Your task to perform on an android device: Search for sushi restaurants on Maps Image 0: 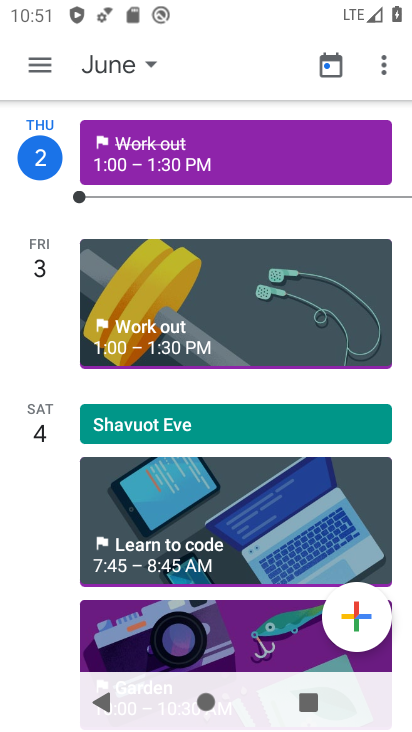
Step 0: press home button
Your task to perform on an android device: Search for sushi restaurants on Maps Image 1: 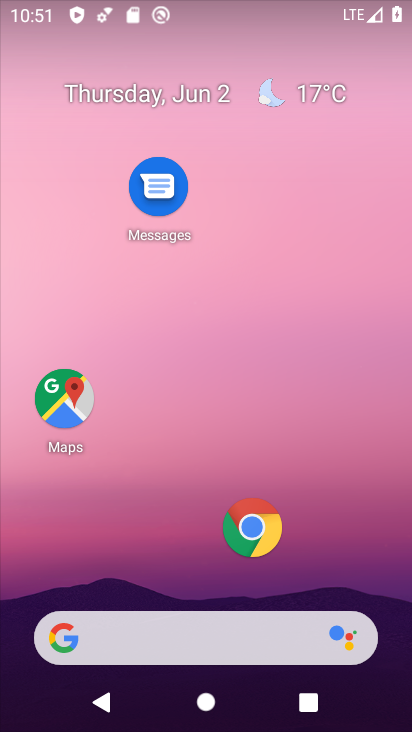
Step 1: click (59, 392)
Your task to perform on an android device: Search for sushi restaurants on Maps Image 2: 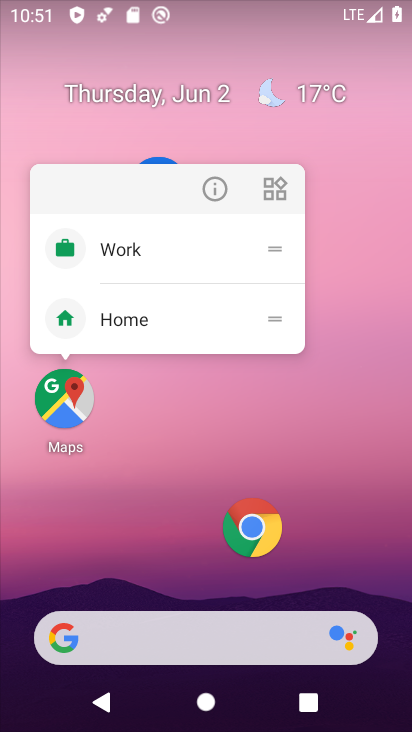
Step 2: click (60, 396)
Your task to perform on an android device: Search for sushi restaurants on Maps Image 3: 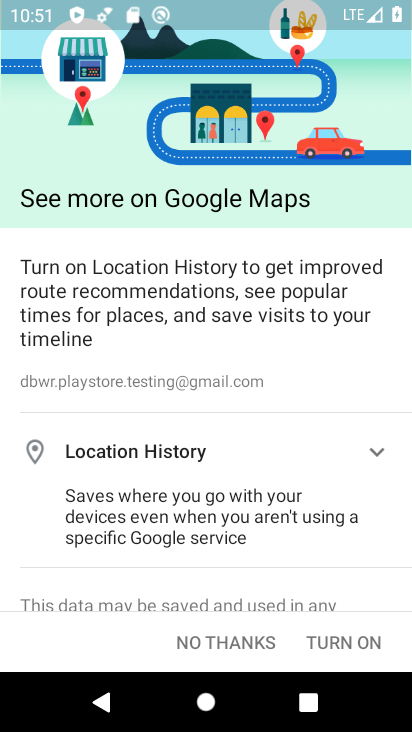
Step 3: click (365, 643)
Your task to perform on an android device: Search for sushi restaurants on Maps Image 4: 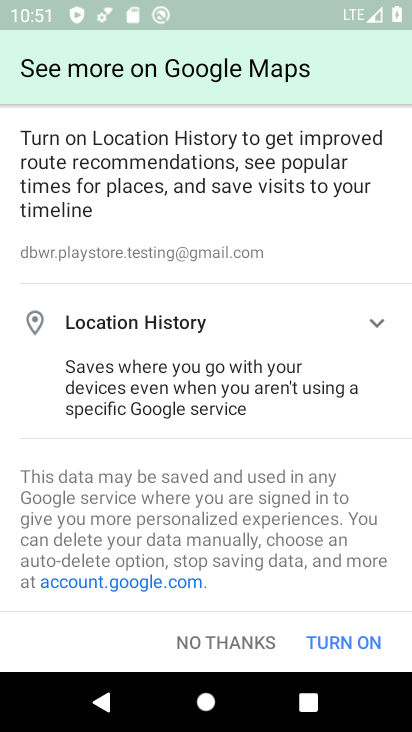
Step 4: click (362, 637)
Your task to perform on an android device: Search for sushi restaurants on Maps Image 5: 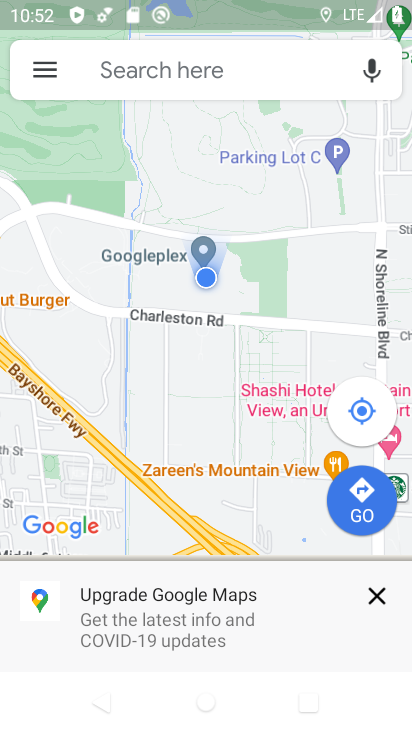
Step 5: click (150, 62)
Your task to perform on an android device: Search for sushi restaurants on Maps Image 6: 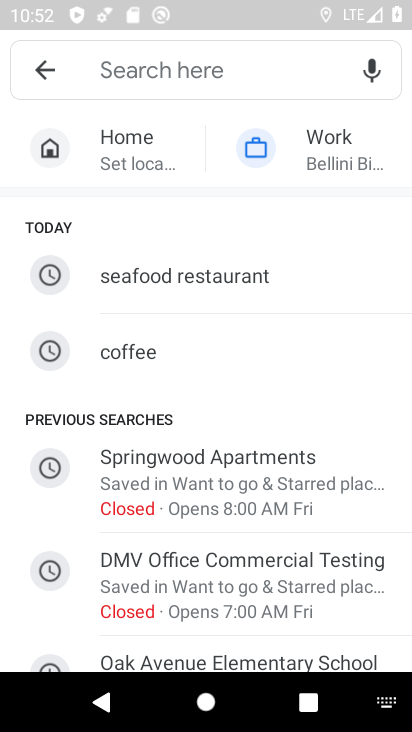
Step 6: type "sushi"
Your task to perform on an android device: Search for sushi restaurants on Maps Image 7: 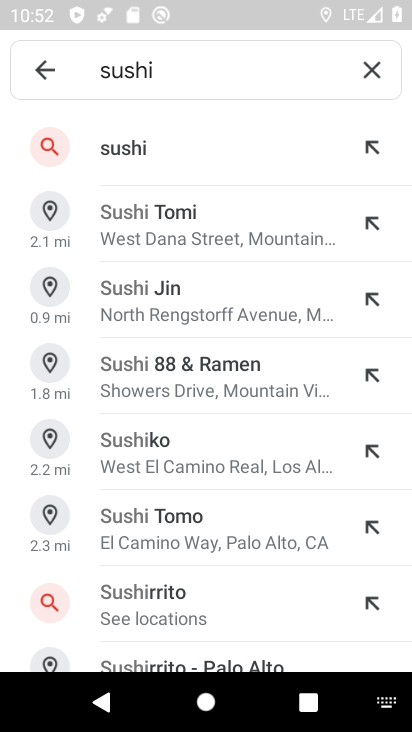
Step 7: click (146, 150)
Your task to perform on an android device: Search for sushi restaurants on Maps Image 8: 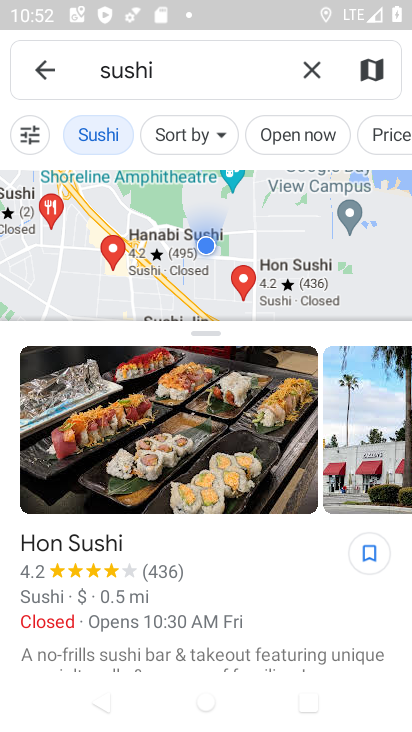
Step 8: task complete